Your task to perform on an android device: change keyboard looks Image 0: 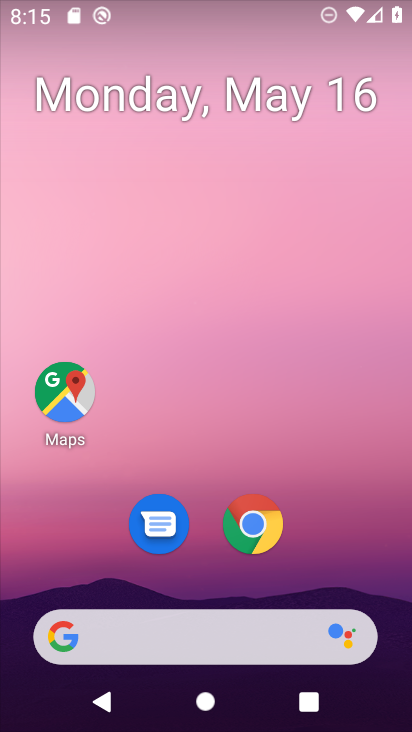
Step 0: drag from (315, 545) to (293, 16)
Your task to perform on an android device: change keyboard looks Image 1: 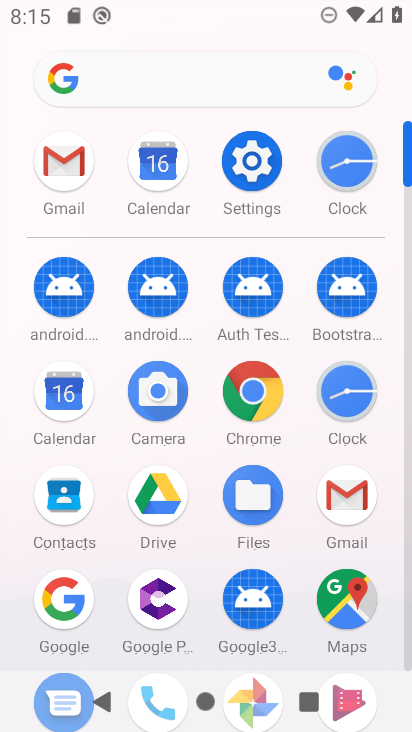
Step 1: click (250, 160)
Your task to perform on an android device: change keyboard looks Image 2: 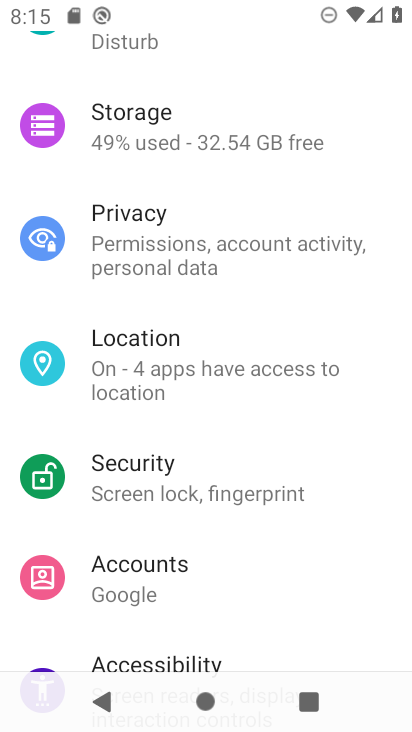
Step 2: drag from (260, 548) to (209, 8)
Your task to perform on an android device: change keyboard looks Image 3: 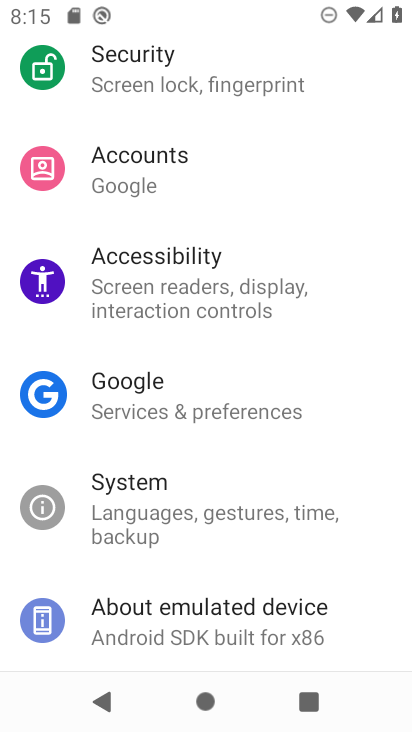
Step 3: click (206, 518)
Your task to perform on an android device: change keyboard looks Image 4: 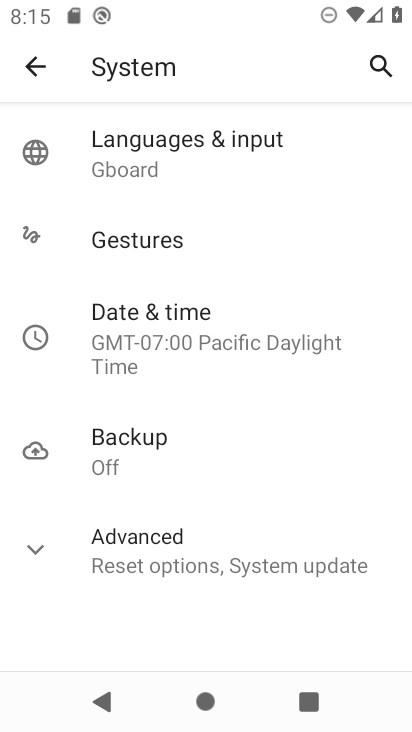
Step 4: click (193, 162)
Your task to perform on an android device: change keyboard looks Image 5: 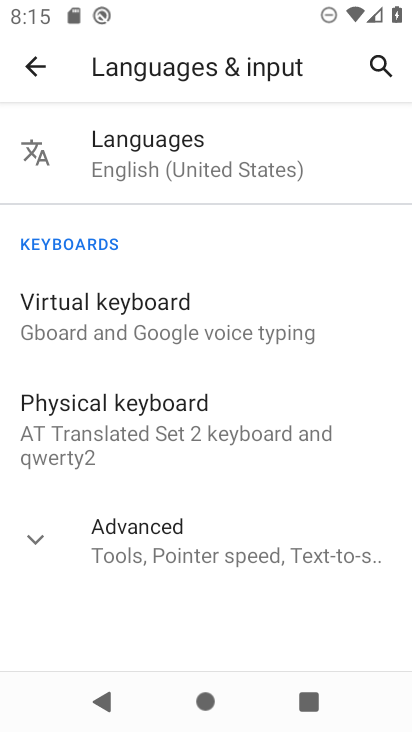
Step 5: click (150, 312)
Your task to perform on an android device: change keyboard looks Image 6: 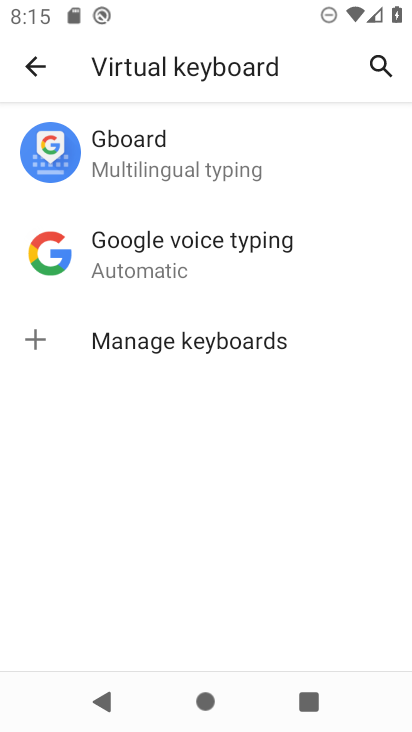
Step 6: click (147, 155)
Your task to perform on an android device: change keyboard looks Image 7: 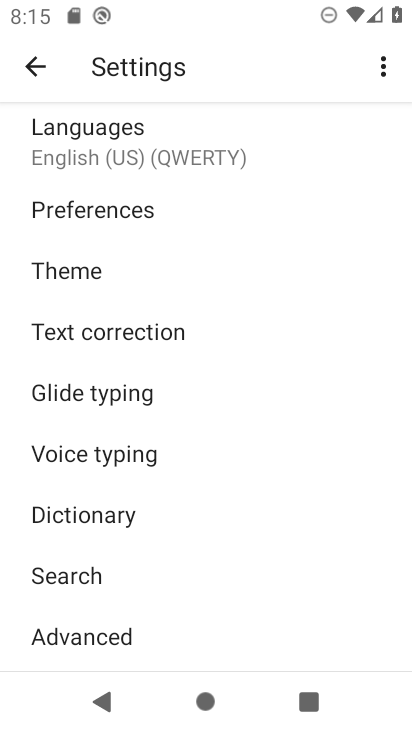
Step 7: click (105, 272)
Your task to perform on an android device: change keyboard looks Image 8: 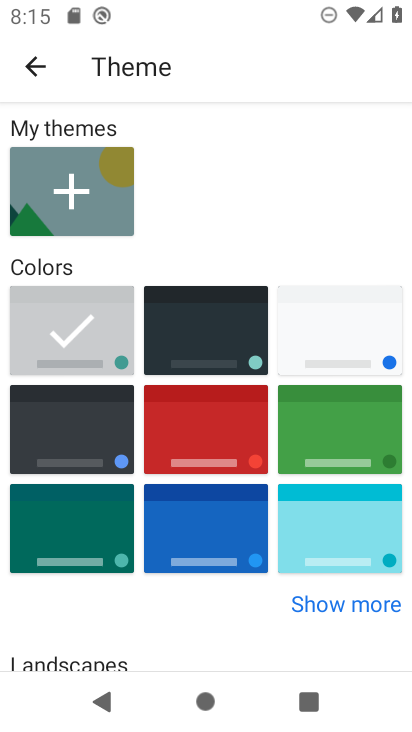
Step 8: click (204, 440)
Your task to perform on an android device: change keyboard looks Image 9: 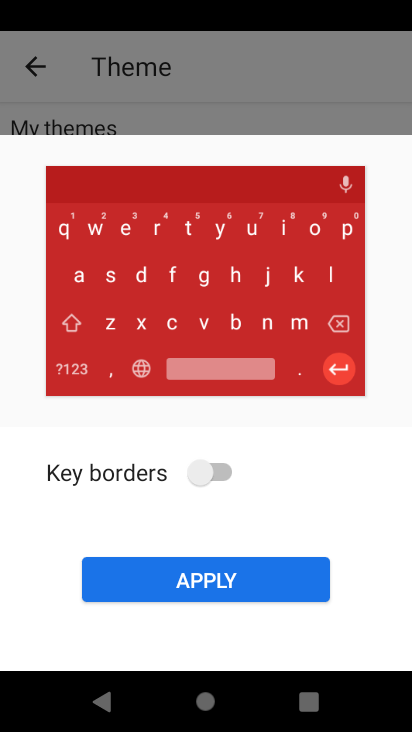
Step 9: click (214, 460)
Your task to perform on an android device: change keyboard looks Image 10: 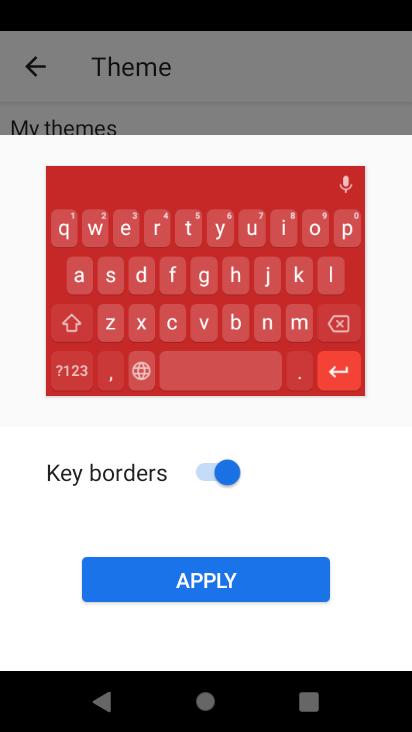
Step 10: click (228, 580)
Your task to perform on an android device: change keyboard looks Image 11: 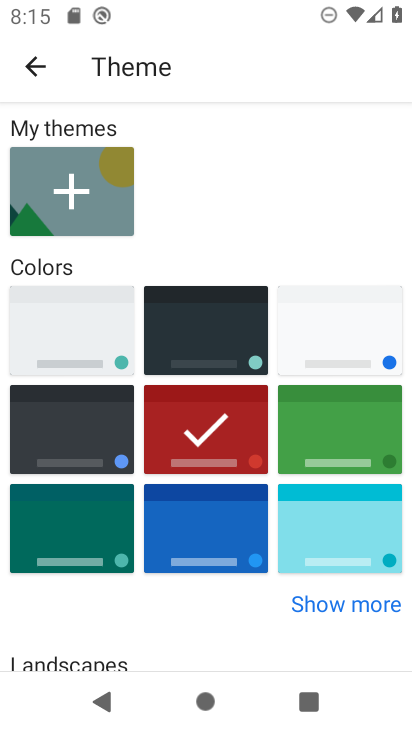
Step 11: task complete